Your task to perform on an android device: open the mobile data screen to see how much data has been used Image 0: 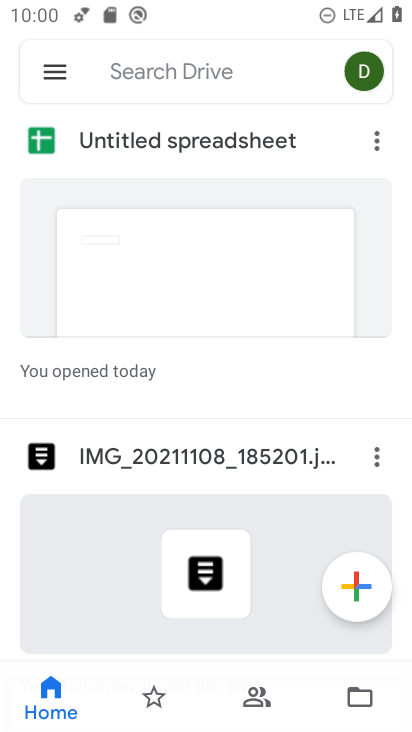
Step 0: press home button
Your task to perform on an android device: open the mobile data screen to see how much data has been used Image 1: 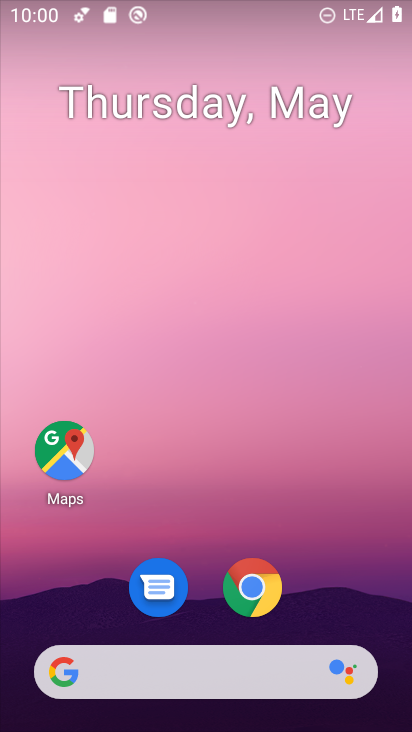
Step 1: drag from (356, 627) to (348, 49)
Your task to perform on an android device: open the mobile data screen to see how much data has been used Image 2: 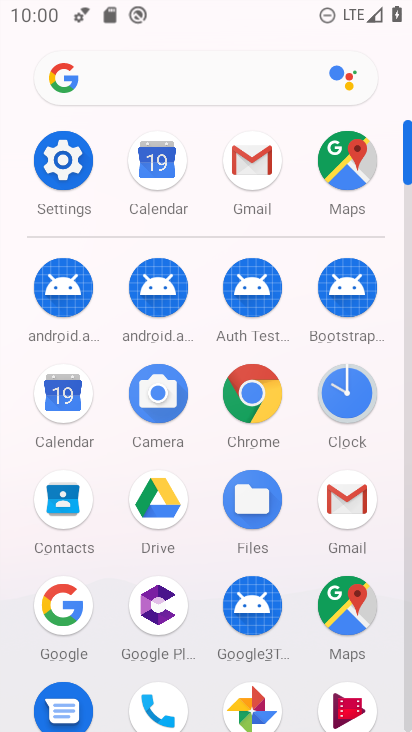
Step 2: click (58, 179)
Your task to perform on an android device: open the mobile data screen to see how much data has been used Image 3: 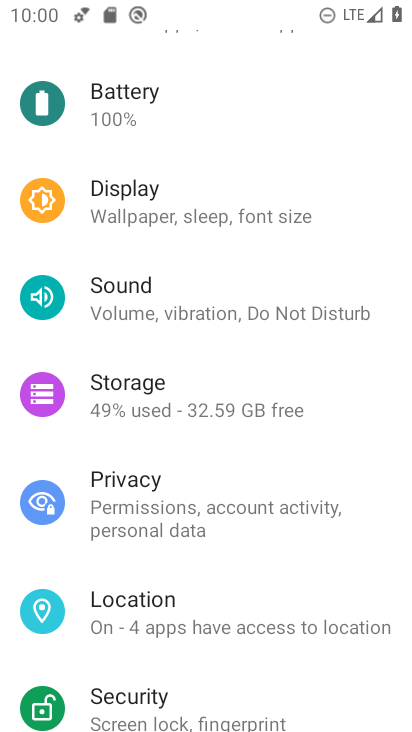
Step 3: drag from (317, 164) to (257, 613)
Your task to perform on an android device: open the mobile data screen to see how much data has been used Image 4: 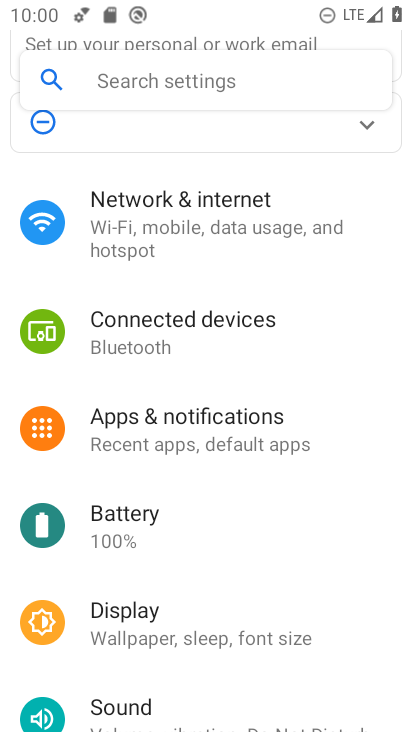
Step 4: click (151, 232)
Your task to perform on an android device: open the mobile data screen to see how much data has been used Image 5: 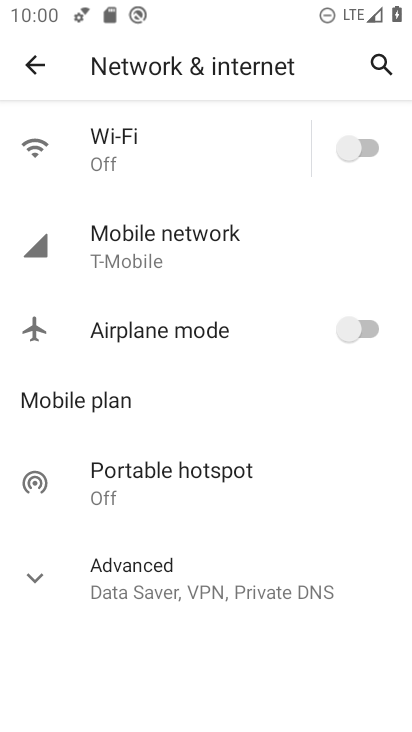
Step 5: click (132, 252)
Your task to perform on an android device: open the mobile data screen to see how much data has been used Image 6: 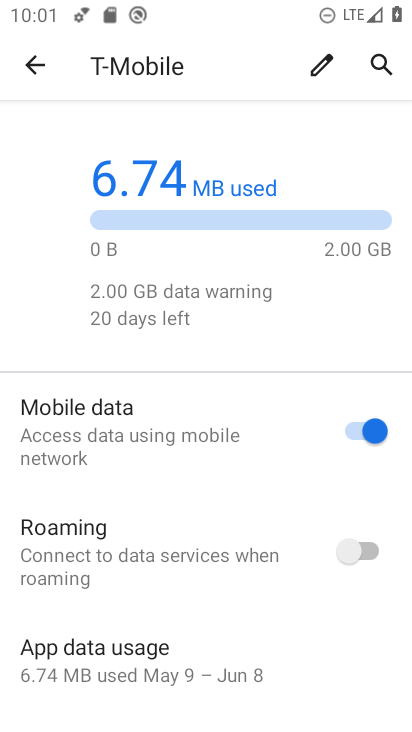
Step 6: drag from (126, 614) to (148, 205)
Your task to perform on an android device: open the mobile data screen to see how much data has been used Image 7: 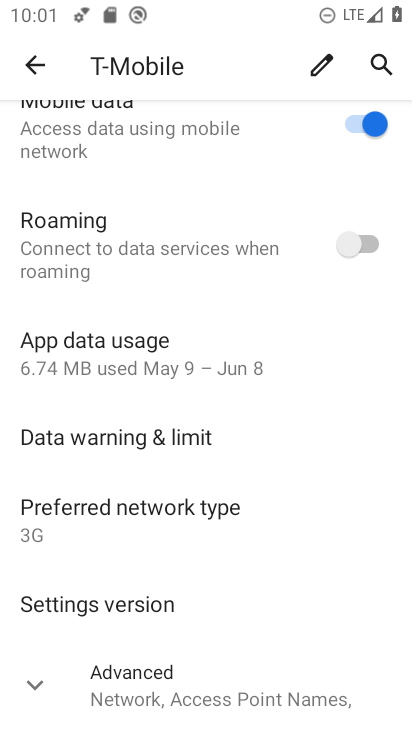
Step 7: click (98, 360)
Your task to perform on an android device: open the mobile data screen to see how much data has been used Image 8: 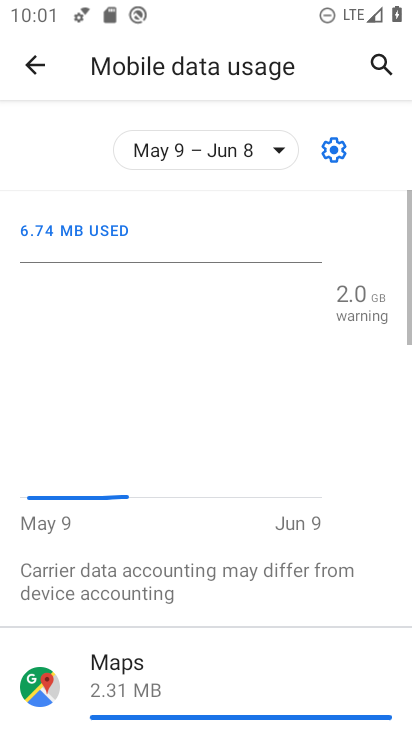
Step 8: task complete